Your task to perform on an android device: Go to CNN.com Image 0: 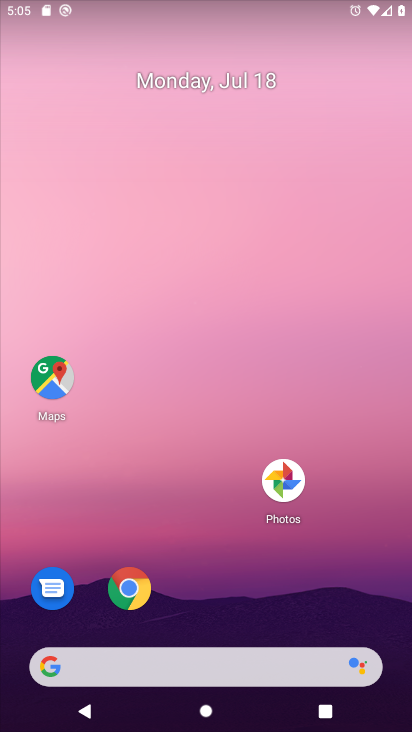
Step 0: drag from (350, 670) to (215, 214)
Your task to perform on an android device: Go to CNN.com Image 1: 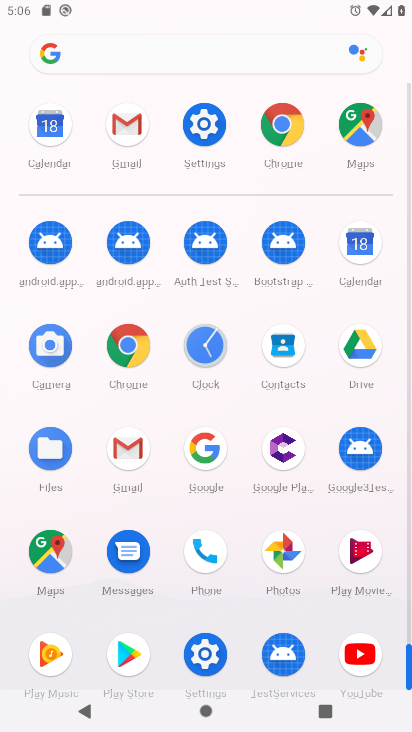
Step 1: drag from (253, 599) to (278, 127)
Your task to perform on an android device: Go to CNN.com Image 2: 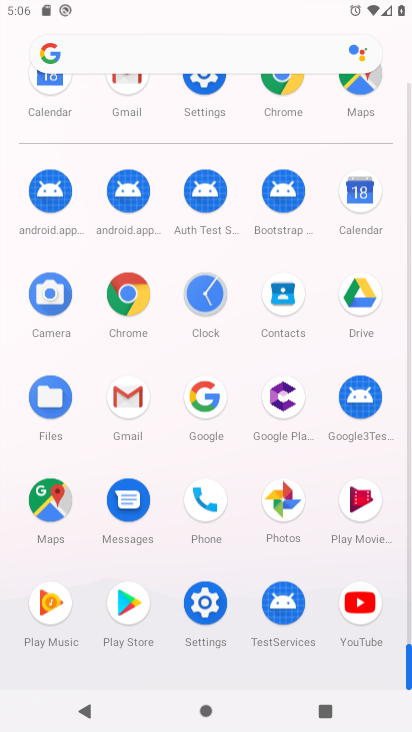
Step 2: click (280, 117)
Your task to perform on an android device: Go to CNN.com Image 3: 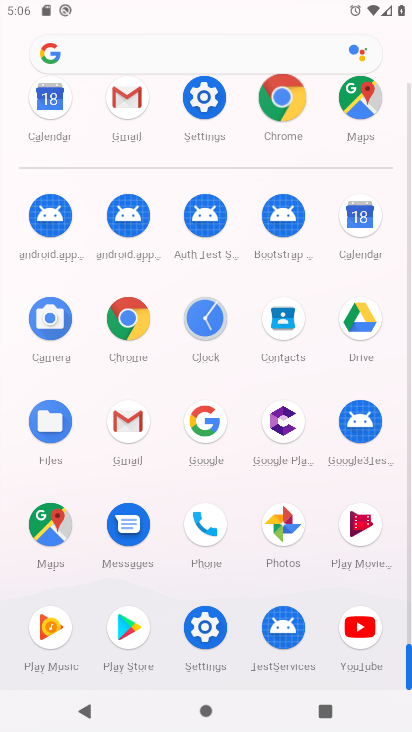
Step 3: click (280, 117)
Your task to perform on an android device: Go to CNN.com Image 4: 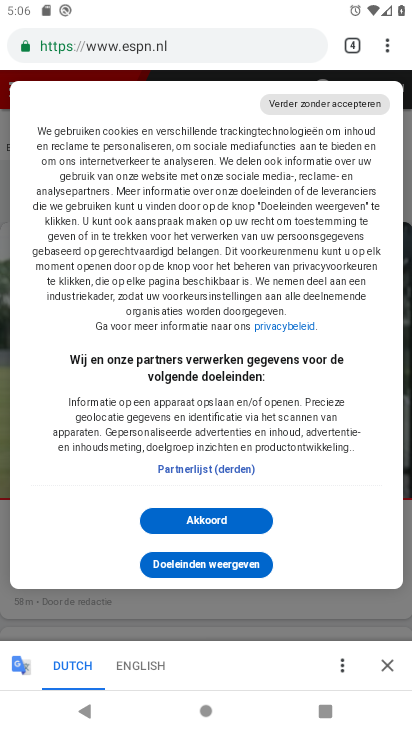
Step 4: drag from (383, 46) to (232, 151)
Your task to perform on an android device: Go to CNN.com Image 5: 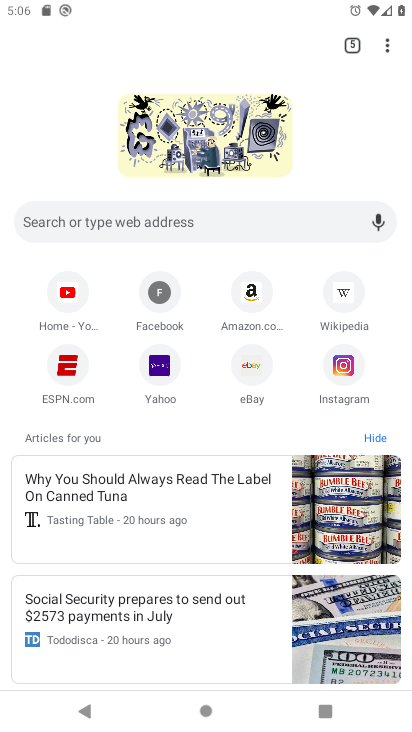
Step 5: click (75, 219)
Your task to perform on an android device: Go to CNN.com Image 6: 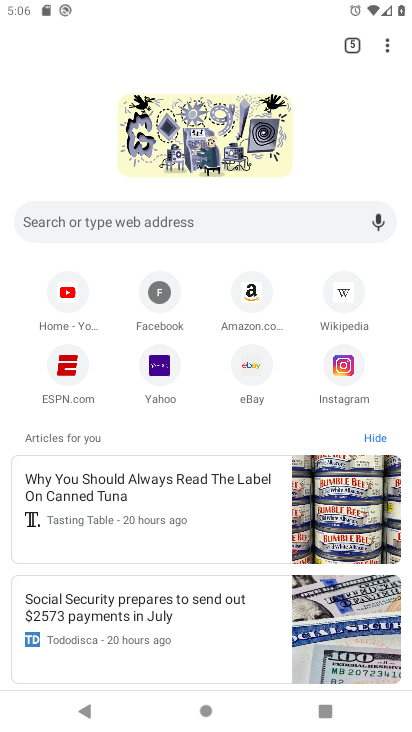
Step 6: click (77, 226)
Your task to perform on an android device: Go to CNN.com Image 7: 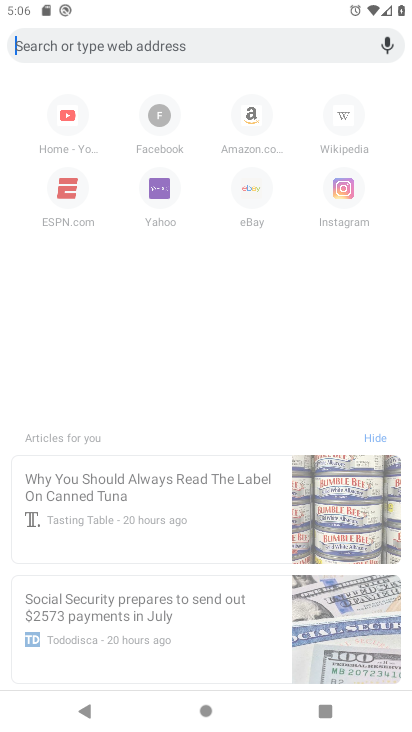
Step 7: click (80, 226)
Your task to perform on an android device: Go to CNN.com Image 8: 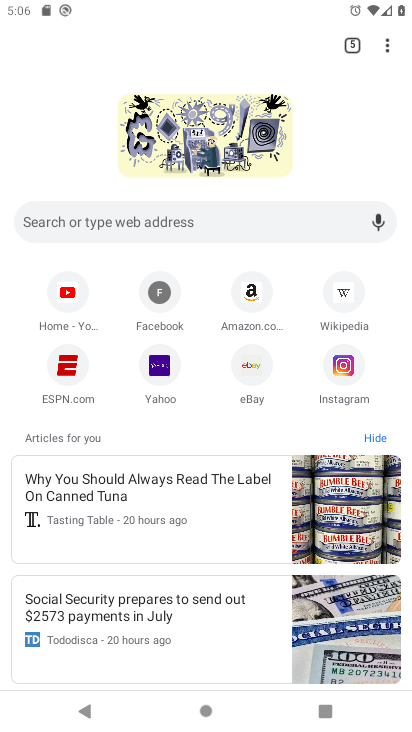
Step 8: click (96, 211)
Your task to perform on an android device: Go to CNN.com Image 9: 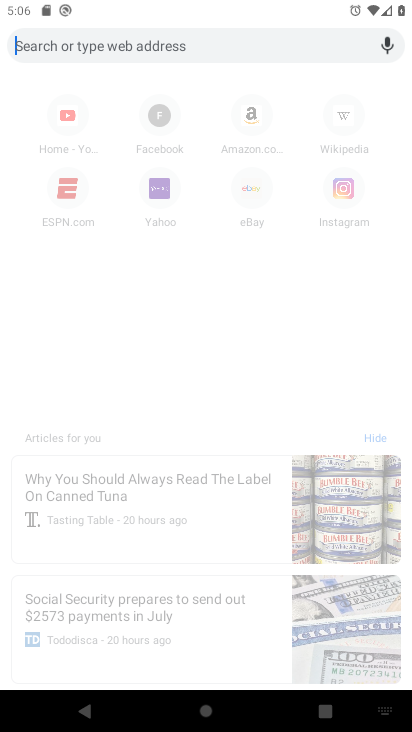
Step 9: type "CNN.com"
Your task to perform on an android device: Go to CNN.com Image 10: 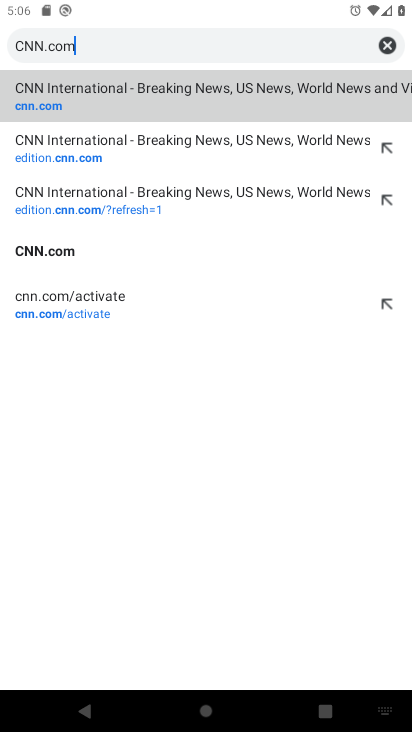
Step 10: click (38, 101)
Your task to perform on an android device: Go to CNN.com Image 11: 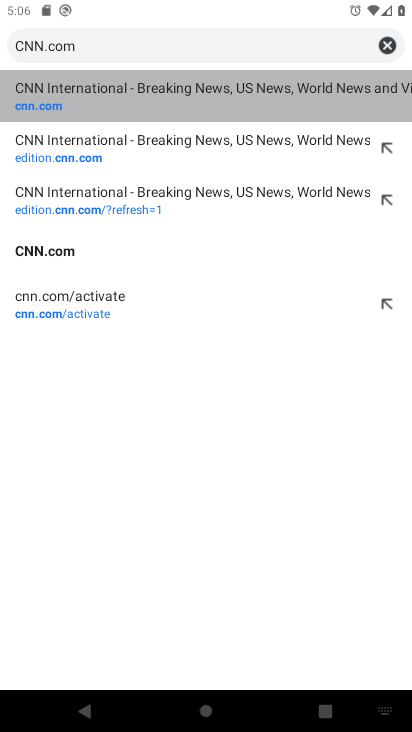
Step 11: click (49, 96)
Your task to perform on an android device: Go to CNN.com Image 12: 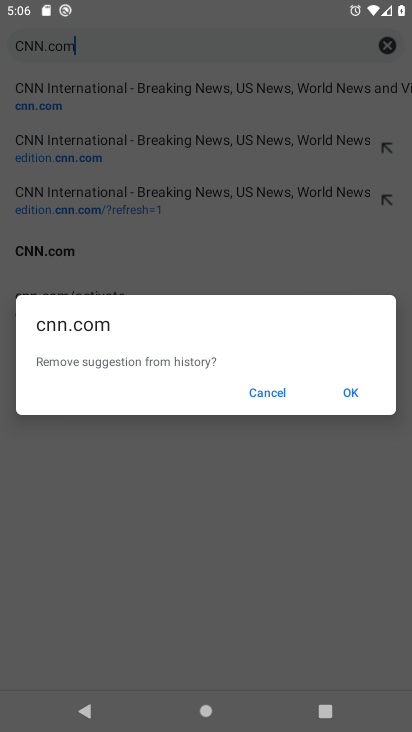
Step 12: click (282, 401)
Your task to perform on an android device: Go to CNN.com Image 13: 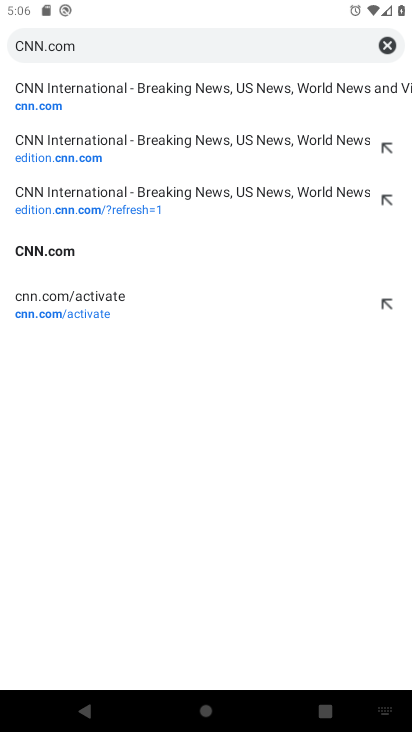
Step 13: task complete